Your task to perform on an android device: turn on translation in the chrome app Image 0: 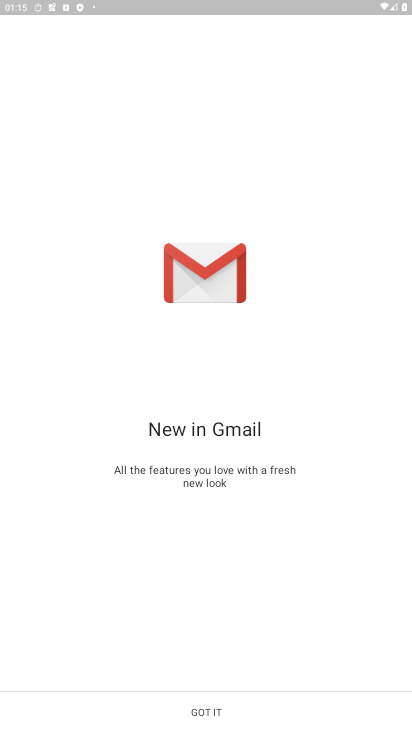
Step 0: click (307, 706)
Your task to perform on an android device: turn on translation in the chrome app Image 1: 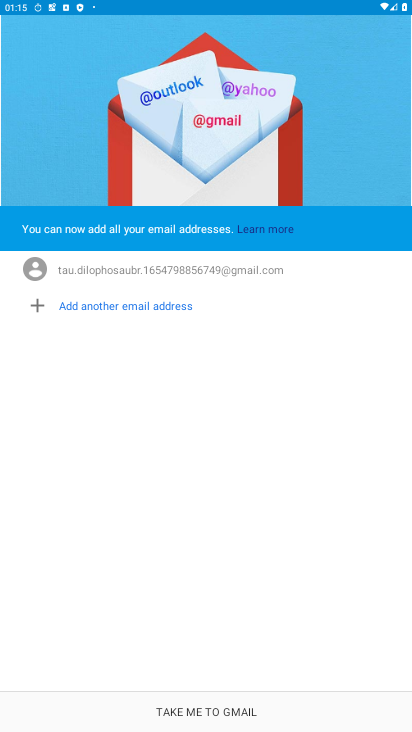
Step 1: click (266, 725)
Your task to perform on an android device: turn on translation in the chrome app Image 2: 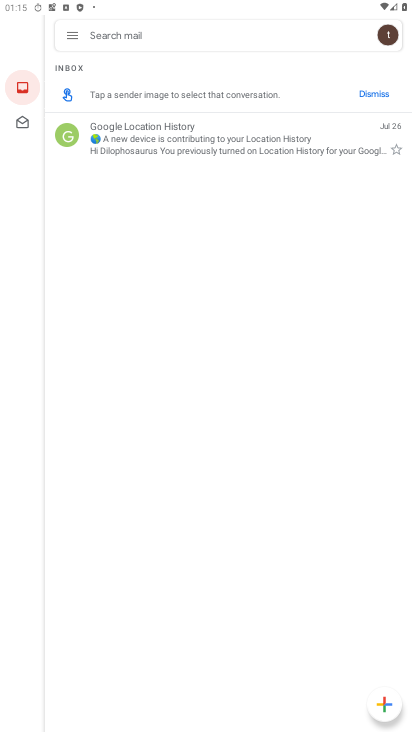
Step 2: click (63, 29)
Your task to perform on an android device: turn on translation in the chrome app Image 3: 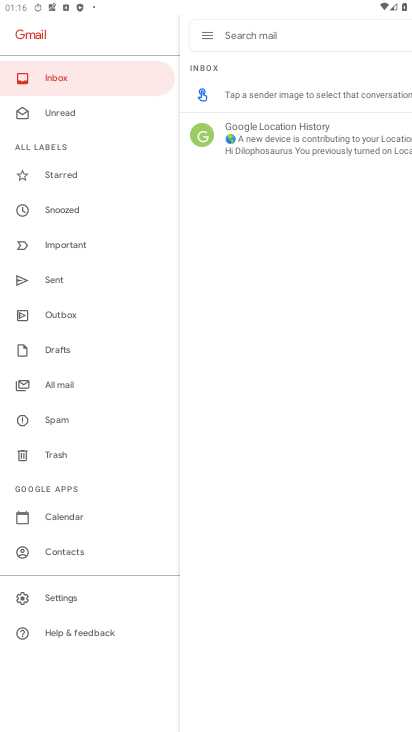
Step 3: press home button
Your task to perform on an android device: turn on translation in the chrome app Image 4: 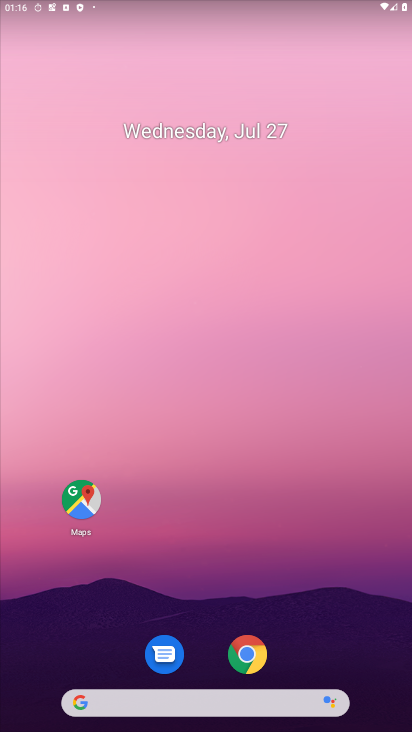
Step 4: drag from (188, 697) to (180, 1)
Your task to perform on an android device: turn on translation in the chrome app Image 5: 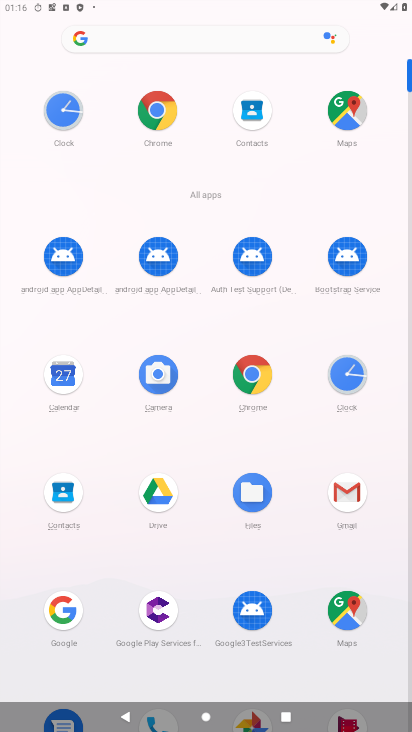
Step 5: click (262, 377)
Your task to perform on an android device: turn on translation in the chrome app Image 6: 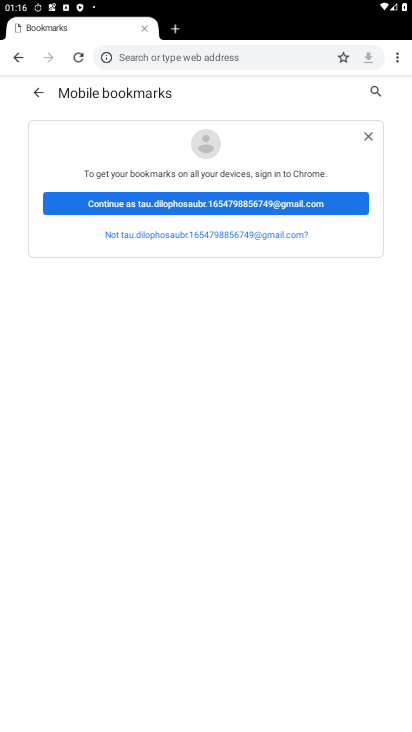
Step 6: click (397, 54)
Your task to perform on an android device: turn on translation in the chrome app Image 7: 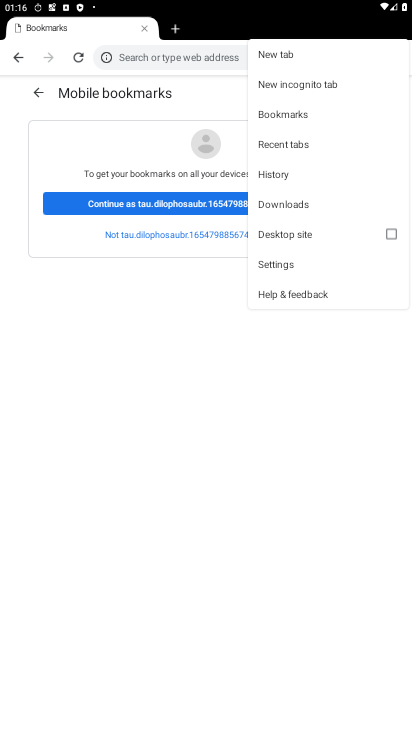
Step 7: click (283, 263)
Your task to perform on an android device: turn on translation in the chrome app Image 8: 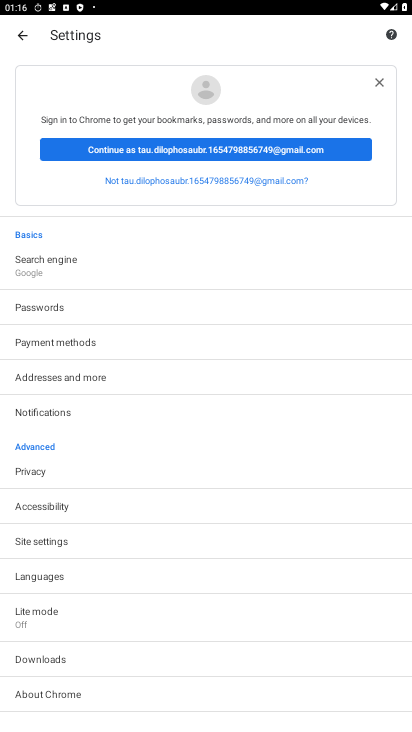
Step 8: click (69, 582)
Your task to perform on an android device: turn on translation in the chrome app Image 9: 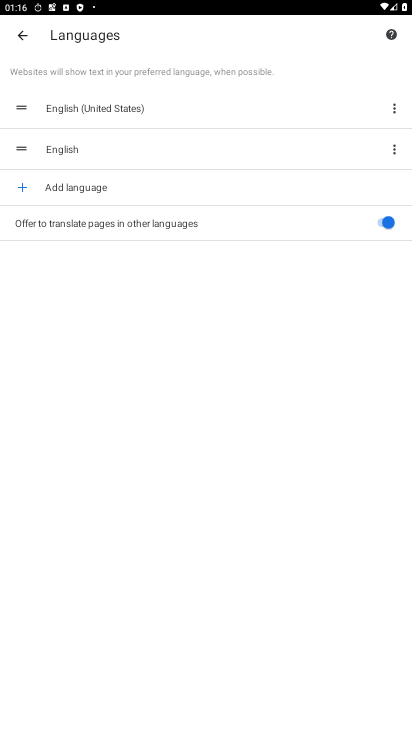
Step 9: task complete